Your task to perform on an android device: Open the calendar app, open the side menu, and click the "Day" option Image 0: 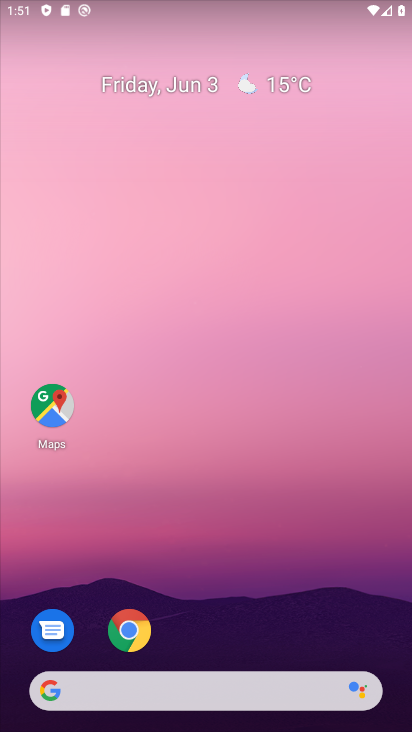
Step 0: drag from (379, 626) to (275, 132)
Your task to perform on an android device: Open the calendar app, open the side menu, and click the "Day" option Image 1: 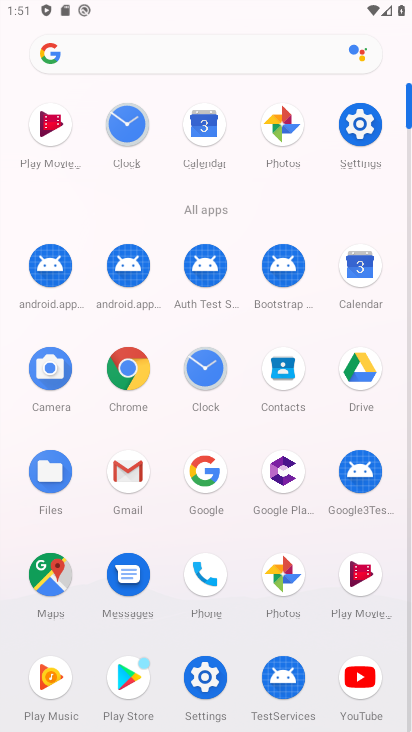
Step 1: click (194, 127)
Your task to perform on an android device: Open the calendar app, open the side menu, and click the "Day" option Image 2: 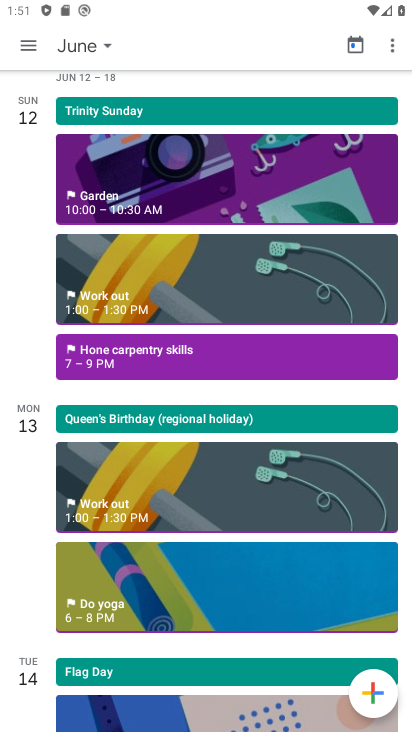
Step 2: click (13, 48)
Your task to perform on an android device: Open the calendar app, open the side menu, and click the "Day" option Image 3: 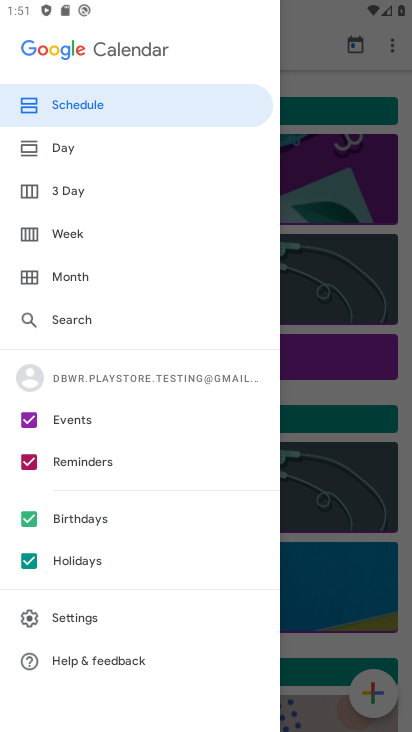
Step 3: click (65, 158)
Your task to perform on an android device: Open the calendar app, open the side menu, and click the "Day" option Image 4: 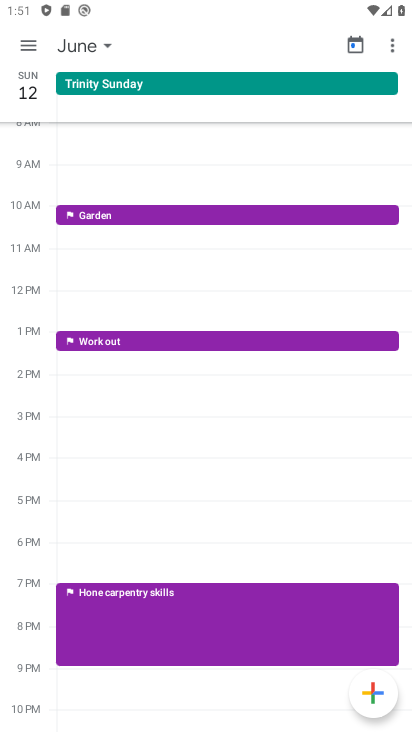
Step 4: task complete